Your task to perform on an android device: change the clock display to digital Image 0: 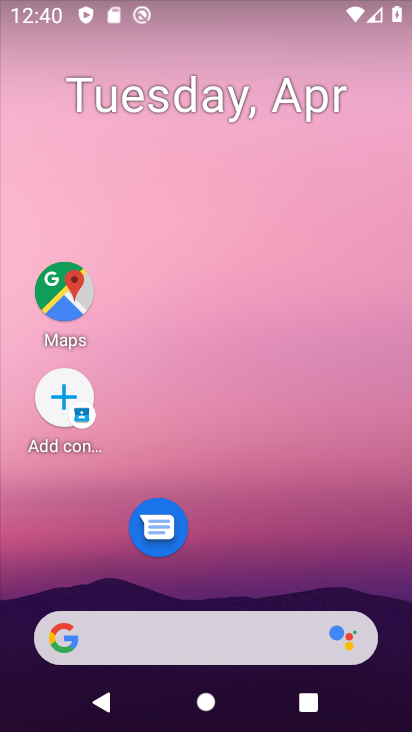
Step 0: drag from (255, 570) to (254, 69)
Your task to perform on an android device: change the clock display to digital Image 1: 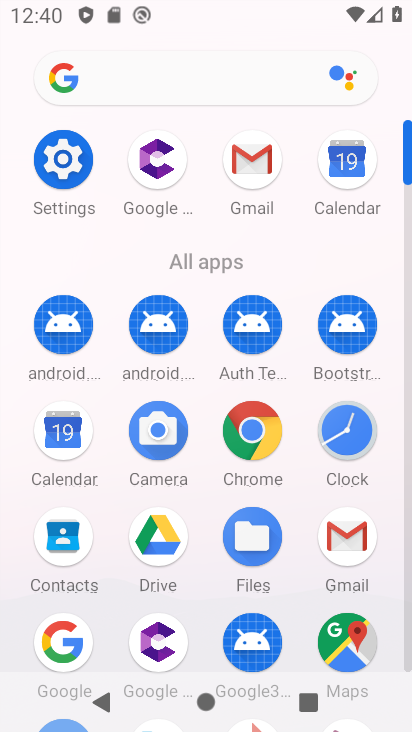
Step 1: click (349, 432)
Your task to perform on an android device: change the clock display to digital Image 2: 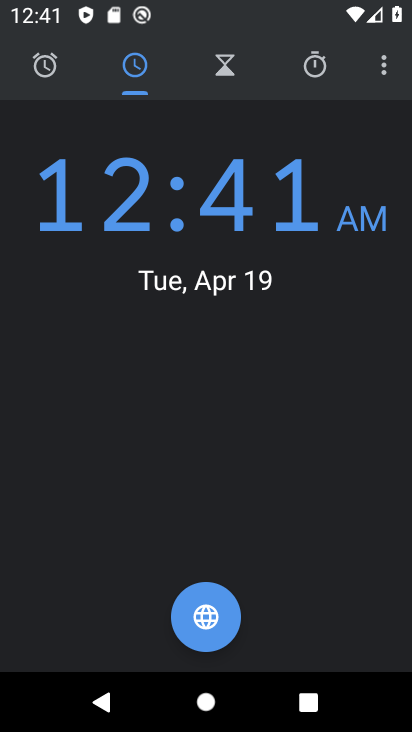
Step 2: click (388, 62)
Your task to perform on an android device: change the clock display to digital Image 3: 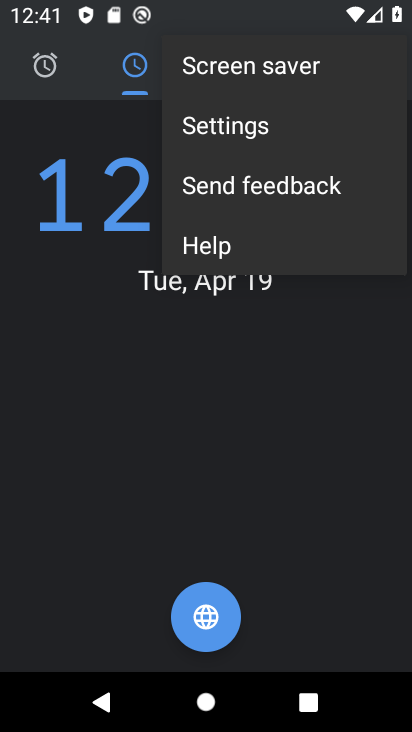
Step 3: click (267, 125)
Your task to perform on an android device: change the clock display to digital Image 4: 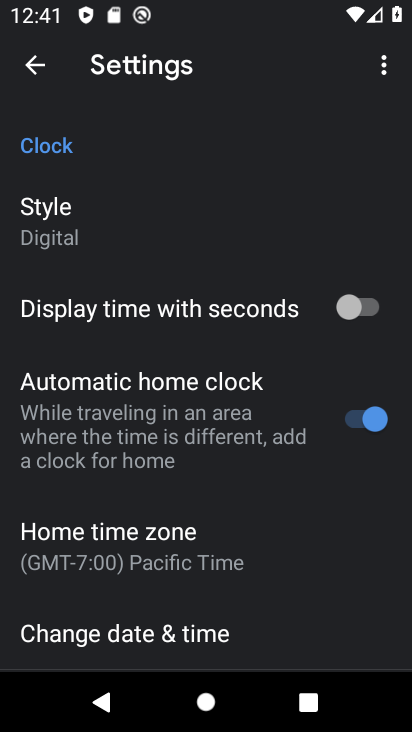
Step 4: click (66, 231)
Your task to perform on an android device: change the clock display to digital Image 5: 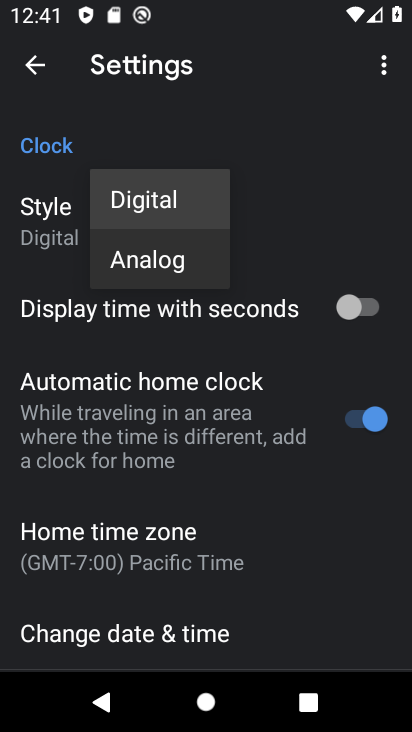
Step 5: click (133, 210)
Your task to perform on an android device: change the clock display to digital Image 6: 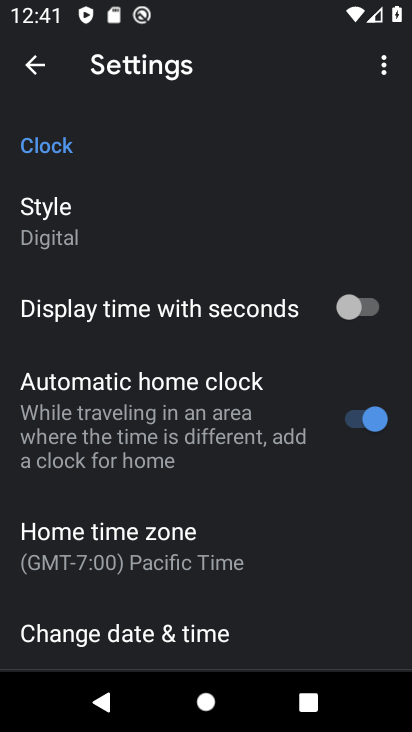
Step 6: task complete